Your task to perform on an android device: toggle data saver in the chrome app Image 0: 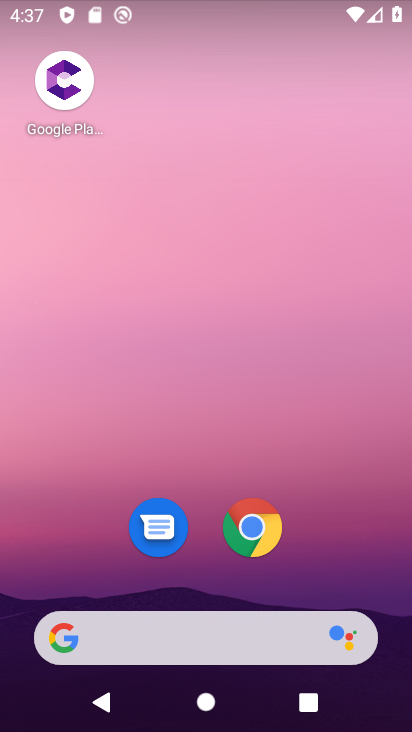
Step 0: click (244, 523)
Your task to perform on an android device: toggle data saver in the chrome app Image 1: 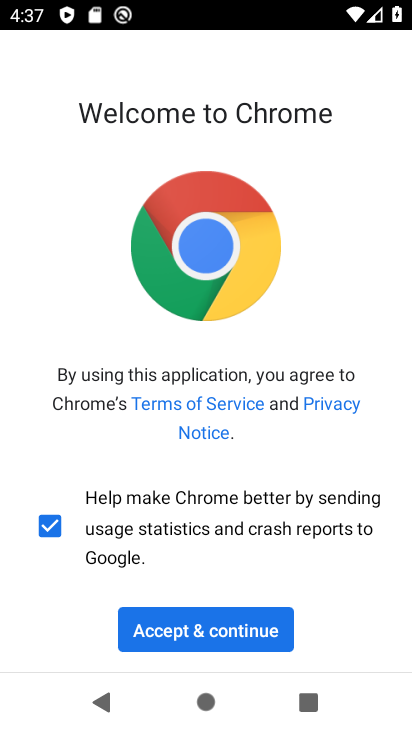
Step 1: click (250, 642)
Your task to perform on an android device: toggle data saver in the chrome app Image 2: 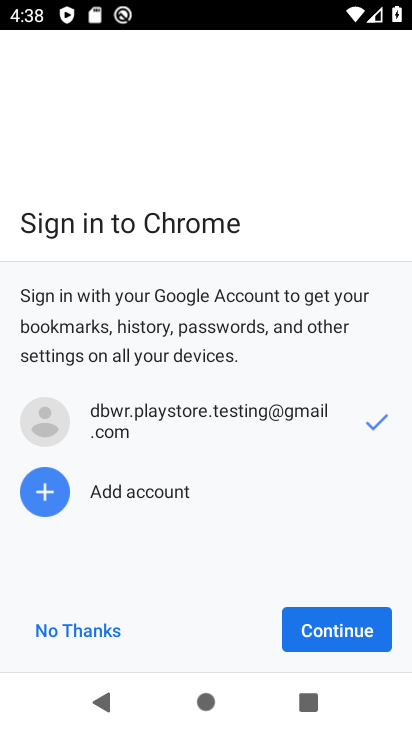
Step 2: click (349, 625)
Your task to perform on an android device: toggle data saver in the chrome app Image 3: 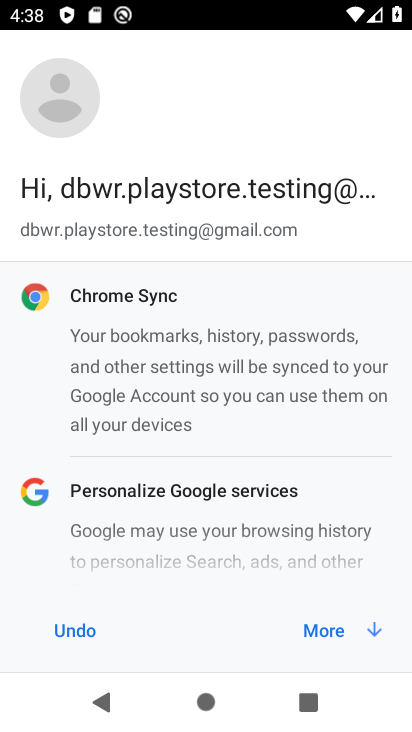
Step 3: click (349, 641)
Your task to perform on an android device: toggle data saver in the chrome app Image 4: 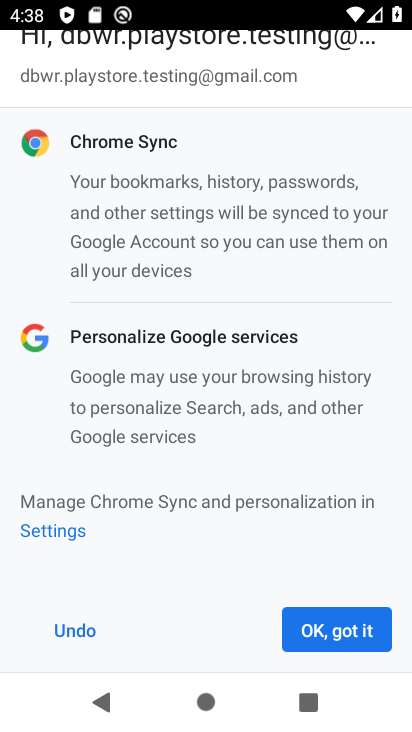
Step 4: click (367, 621)
Your task to perform on an android device: toggle data saver in the chrome app Image 5: 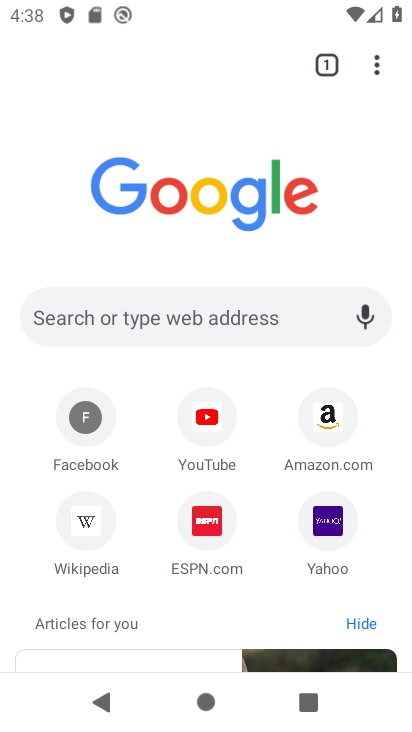
Step 5: click (363, 66)
Your task to perform on an android device: toggle data saver in the chrome app Image 6: 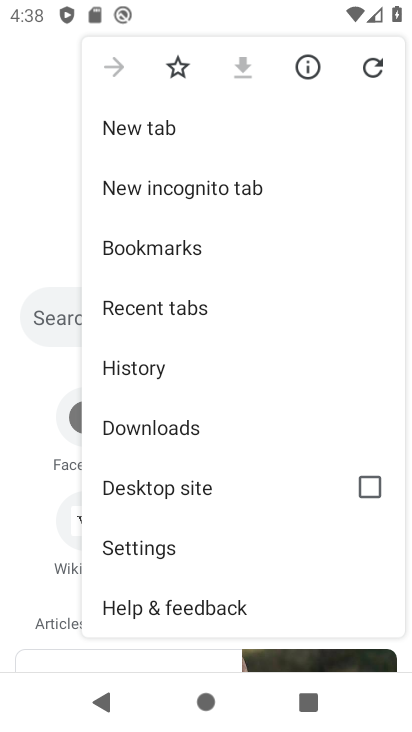
Step 6: click (237, 537)
Your task to perform on an android device: toggle data saver in the chrome app Image 7: 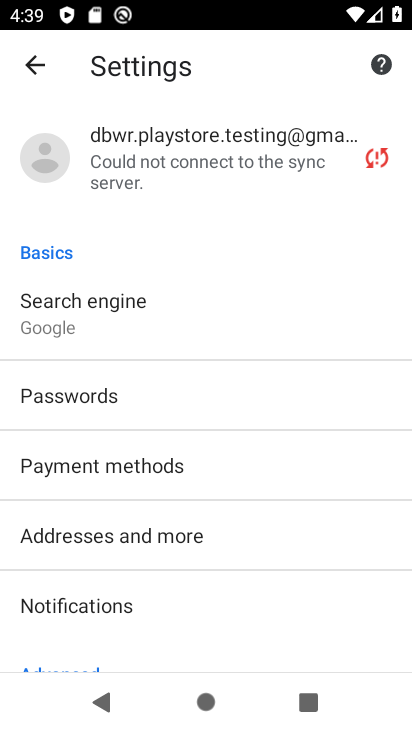
Step 7: drag from (205, 605) to (229, 210)
Your task to perform on an android device: toggle data saver in the chrome app Image 8: 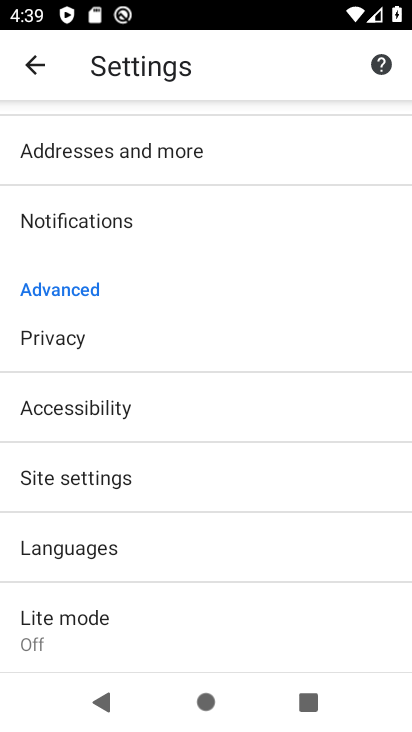
Step 8: click (93, 617)
Your task to perform on an android device: toggle data saver in the chrome app Image 9: 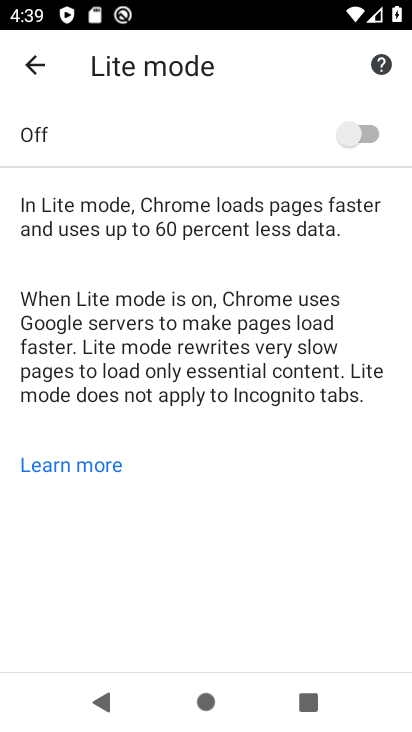
Step 9: click (366, 125)
Your task to perform on an android device: toggle data saver in the chrome app Image 10: 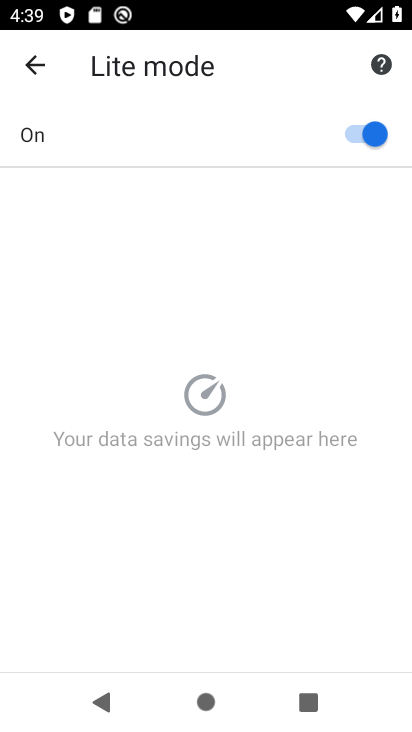
Step 10: task complete